Your task to perform on an android device: move a message to another label in the gmail app Image 0: 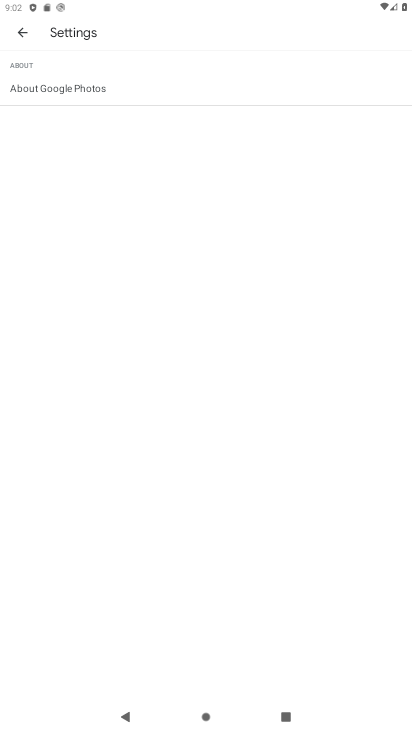
Step 0: press home button
Your task to perform on an android device: move a message to another label in the gmail app Image 1: 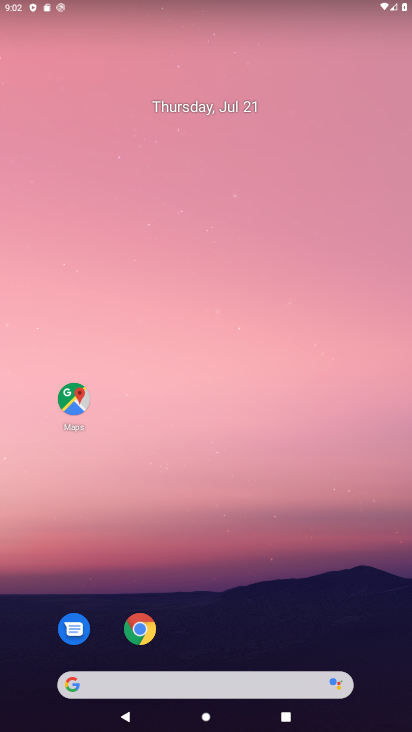
Step 1: drag from (290, 609) to (290, 59)
Your task to perform on an android device: move a message to another label in the gmail app Image 2: 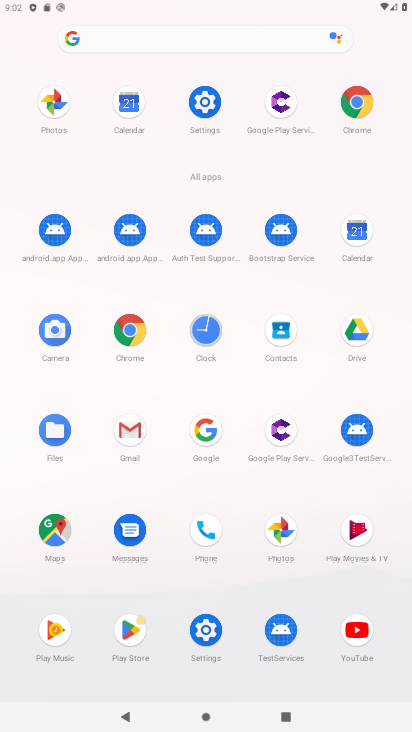
Step 2: click (127, 435)
Your task to perform on an android device: move a message to another label in the gmail app Image 3: 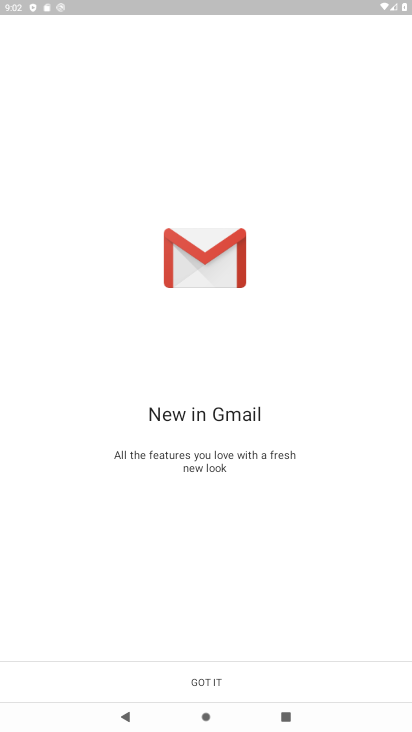
Step 3: click (142, 662)
Your task to perform on an android device: move a message to another label in the gmail app Image 4: 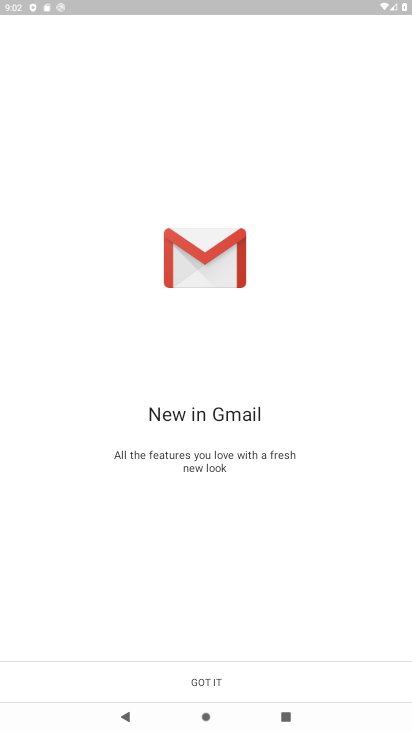
Step 4: click (158, 670)
Your task to perform on an android device: move a message to another label in the gmail app Image 5: 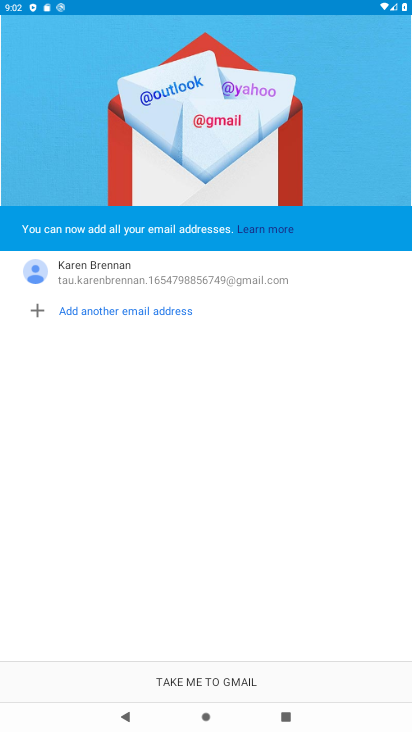
Step 5: click (262, 685)
Your task to perform on an android device: move a message to another label in the gmail app Image 6: 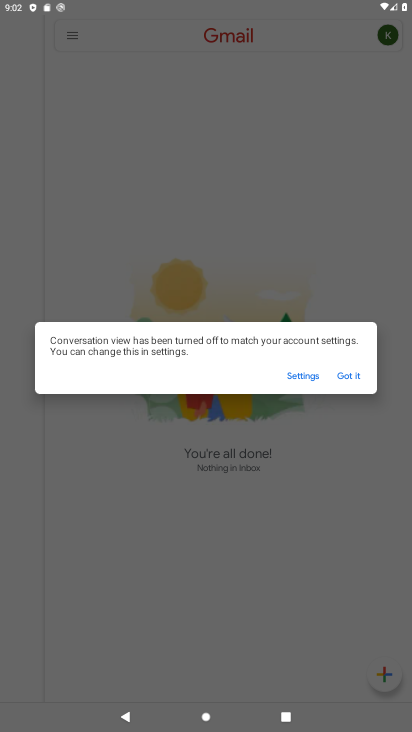
Step 6: click (350, 376)
Your task to perform on an android device: move a message to another label in the gmail app Image 7: 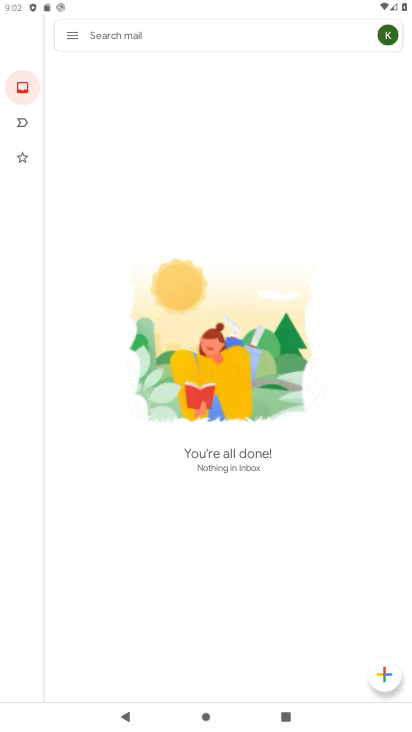
Step 7: click (75, 34)
Your task to perform on an android device: move a message to another label in the gmail app Image 8: 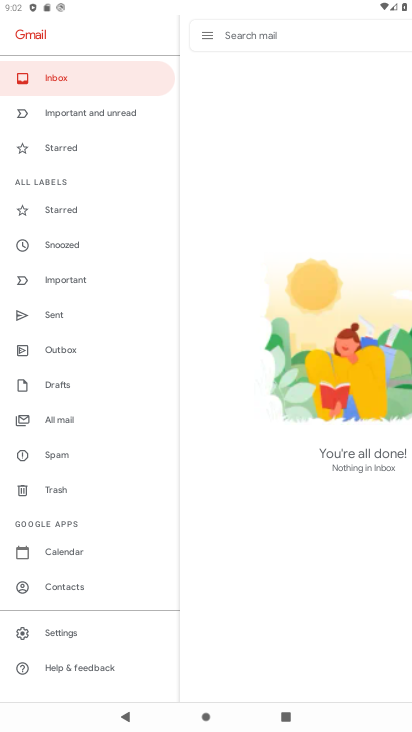
Step 8: click (83, 410)
Your task to perform on an android device: move a message to another label in the gmail app Image 9: 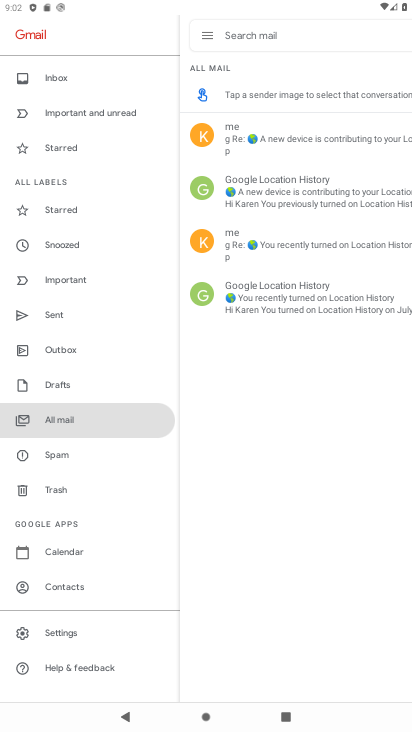
Step 9: click (275, 132)
Your task to perform on an android device: move a message to another label in the gmail app Image 10: 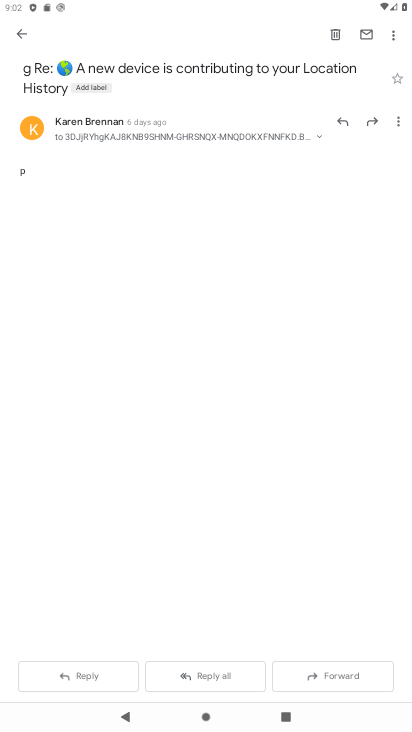
Step 10: click (102, 90)
Your task to perform on an android device: move a message to another label in the gmail app Image 11: 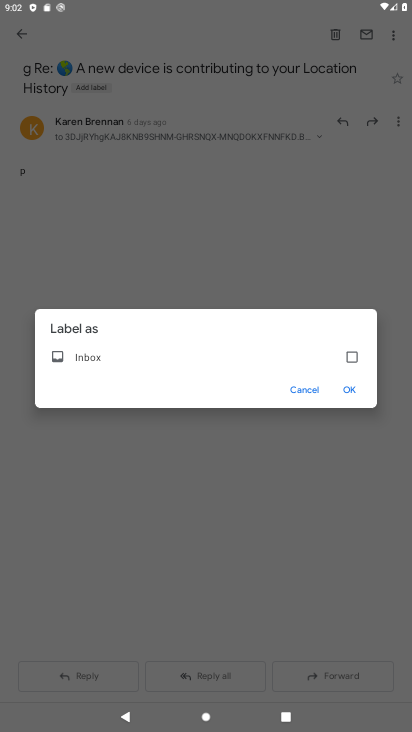
Step 11: click (357, 364)
Your task to perform on an android device: move a message to another label in the gmail app Image 12: 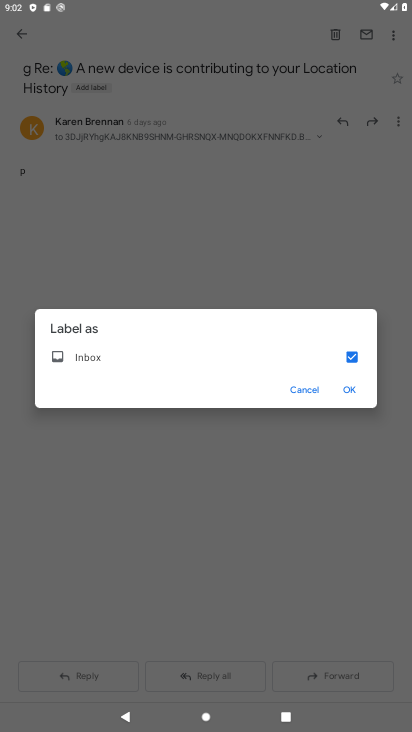
Step 12: click (348, 383)
Your task to perform on an android device: move a message to another label in the gmail app Image 13: 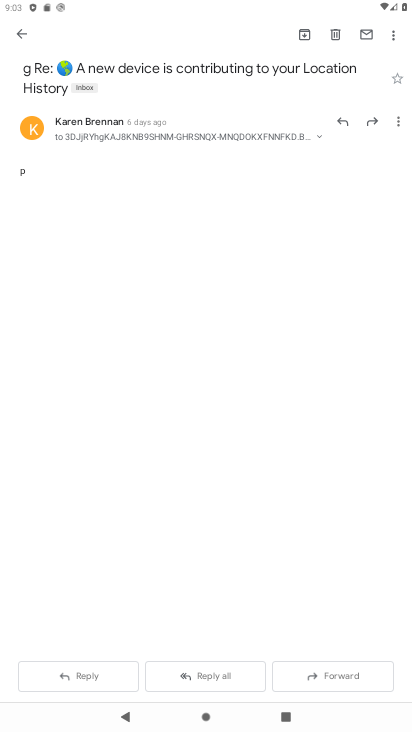
Step 13: task complete